Your task to perform on an android device: Open location settings Image 0: 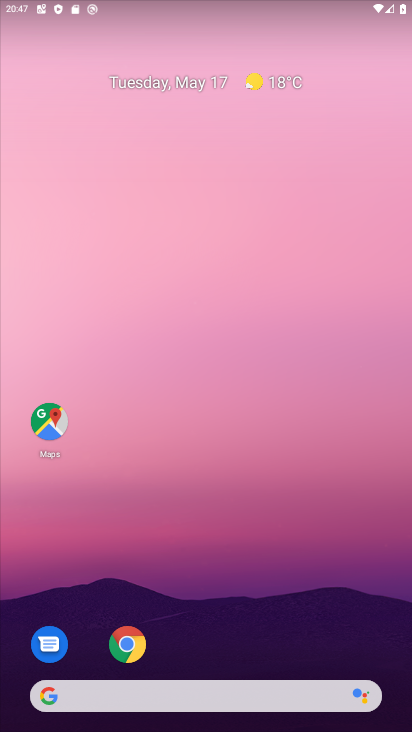
Step 0: drag from (233, 648) to (351, 117)
Your task to perform on an android device: Open location settings Image 1: 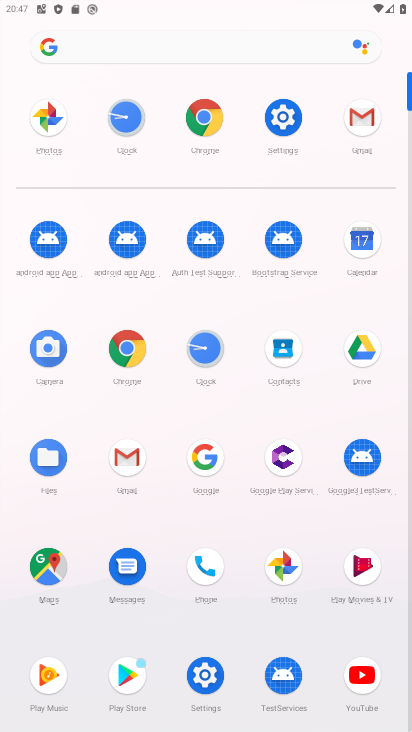
Step 1: click (291, 115)
Your task to perform on an android device: Open location settings Image 2: 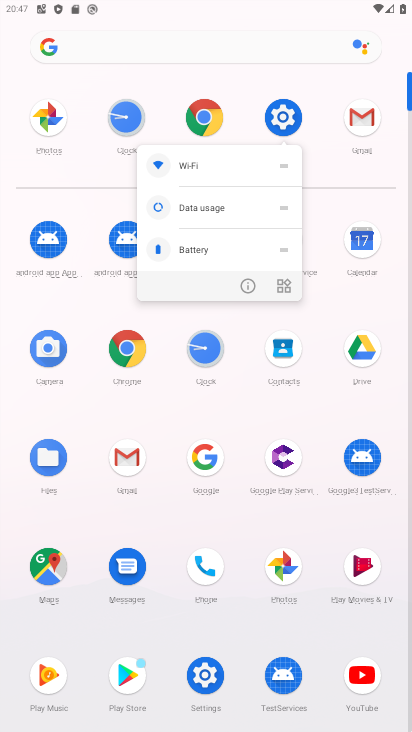
Step 2: click (280, 124)
Your task to perform on an android device: Open location settings Image 3: 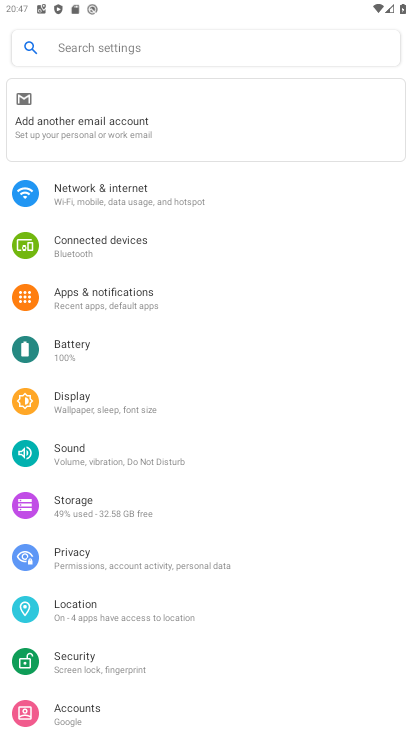
Step 3: click (81, 608)
Your task to perform on an android device: Open location settings Image 4: 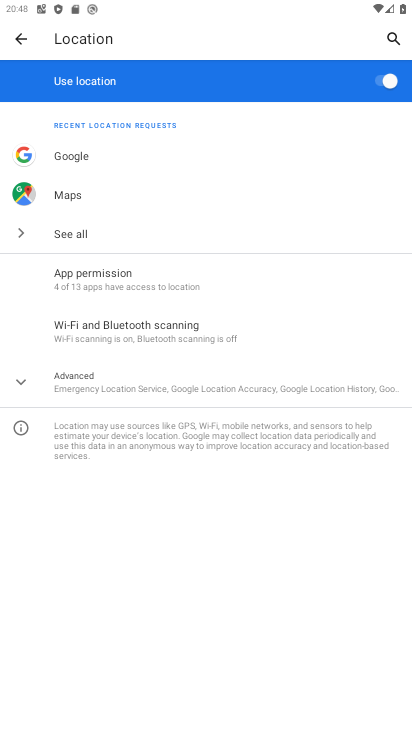
Step 4: task complete